Your task to perform on an android device: turn on notifications settings in the gmail app Image 0: 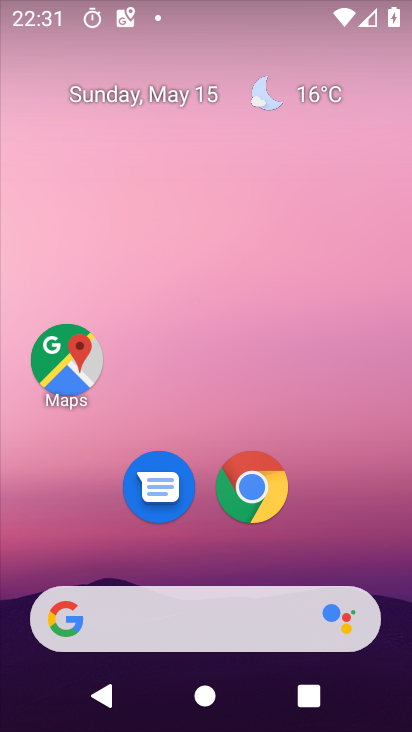
Step 0: drag from (398, 638) to (366, 224)
Your task to perform on an android device: turn on notifications settings in the gmail app Image 1: 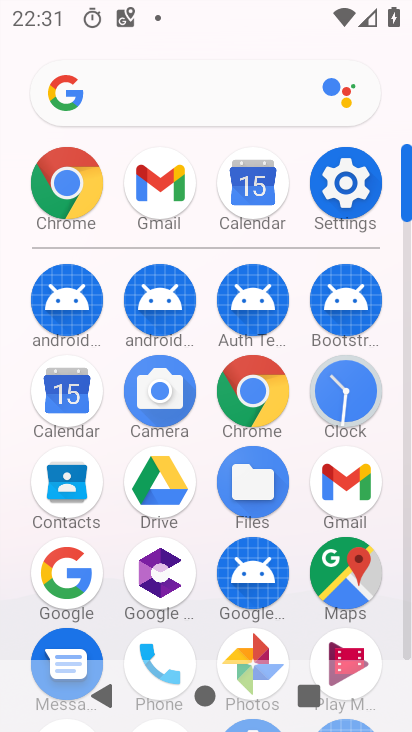
Step 1: click (368, 483)
Your task to perform on an android device: turn on notifications settings in the gmail app Image 2: 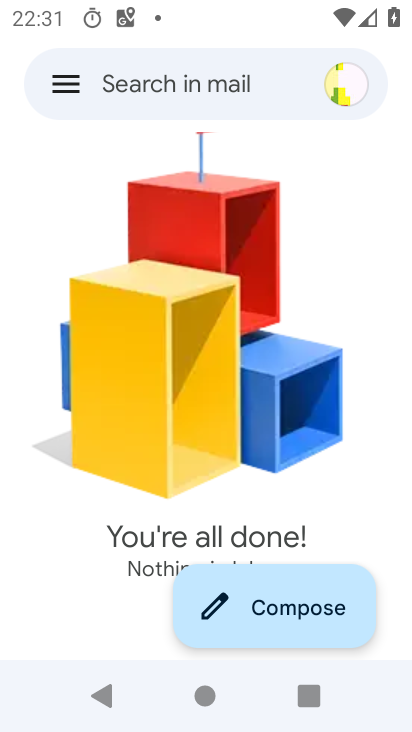
Step 2: click (59, 74)
Your task to perform on an android device: turn on notifications settings in the gmail app Image 3: 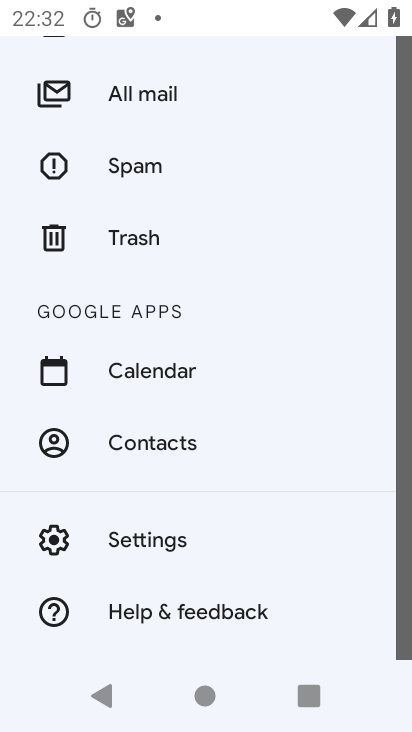
Step 3: drag from (307, 471) to (271, 162)
Your task to perform on an android device: turn on notifications settings in the gmail app Image 4: 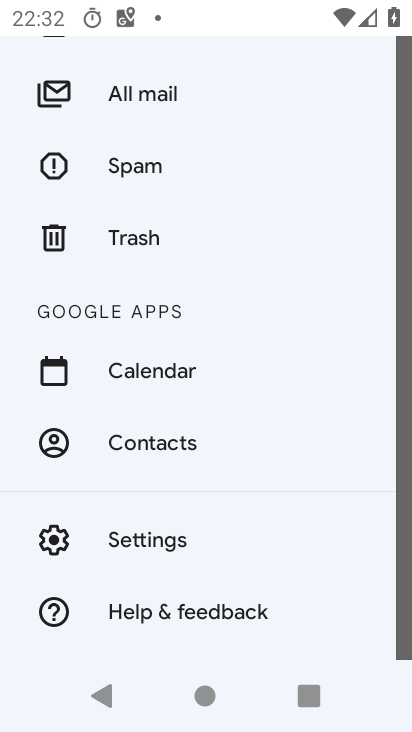
Step 4: drag from (307, 555) to (258, 351)
Your task to perform on an android device: turn on notifications settings in the gmail app Image 5: 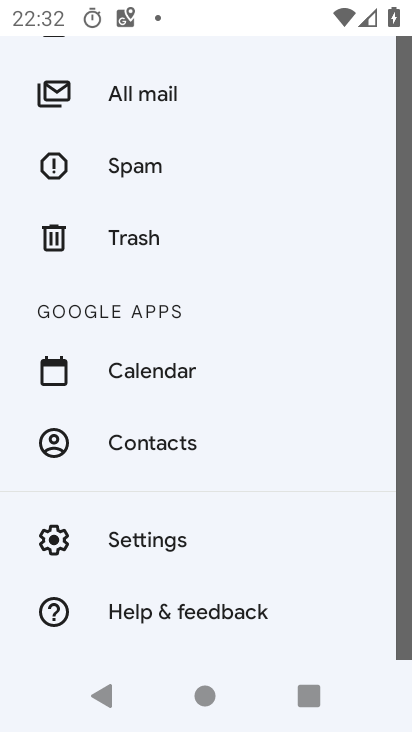
Step 5: click (119, 551)
Your task to perform on an android device: turn on notifications settings in the gmail app Image 6: 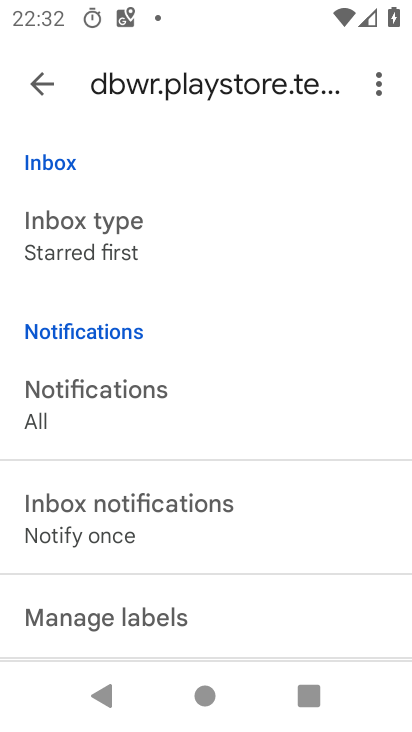
Step 6: click (84, 328)
Your task to perform on an android device: turn on notifications settings in the gmail app Image 7: 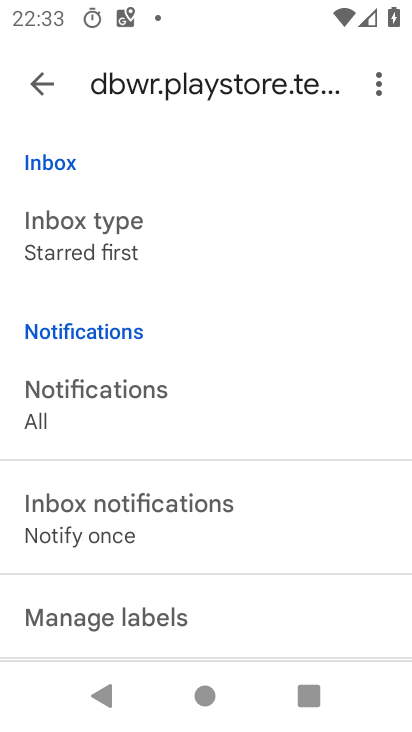
Step 7: click (84, 328)
Your task to perform on an android device: turn on notifications settings in the gmail app Image 8: 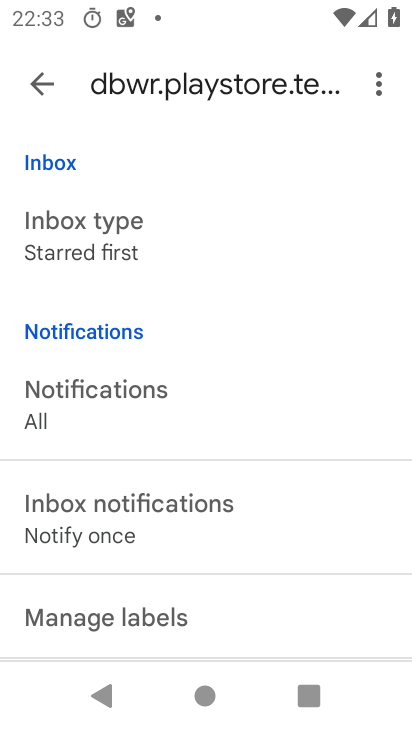
Step 8: click (84, 328)
Your task to perform on an android device: turn on notifications settings in the gmail app Image 9: 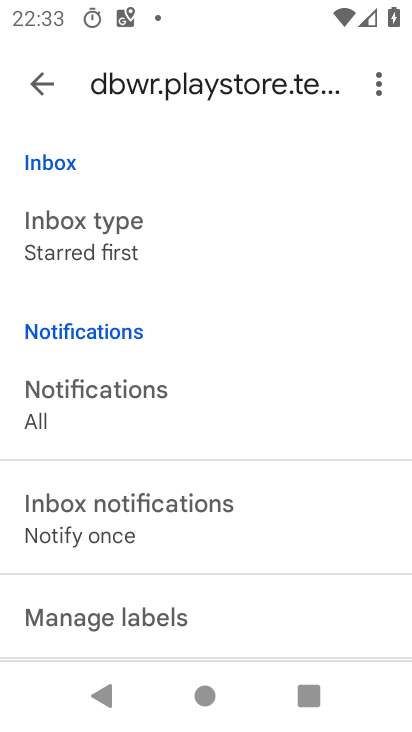
Step 9: click (87, 400)
Your task to perform on an android device: turn on notifications settings in the gmail app Image 10: 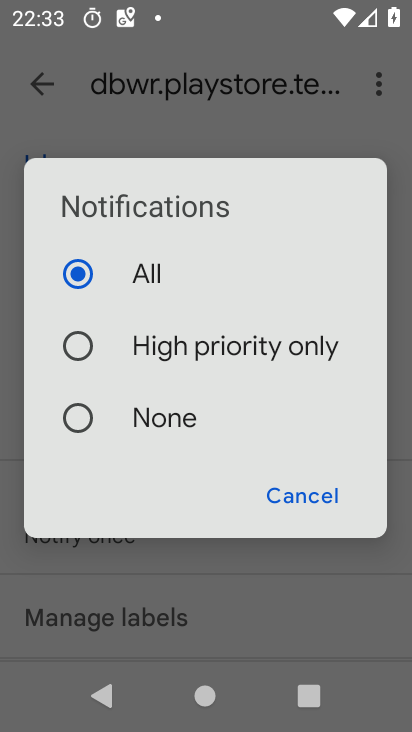
Step 10: task complete